Your task to perform on an android device: Search for "usb-a to usb-b" on bestbuy, select the first entry, and add it to the cart. Image 0: 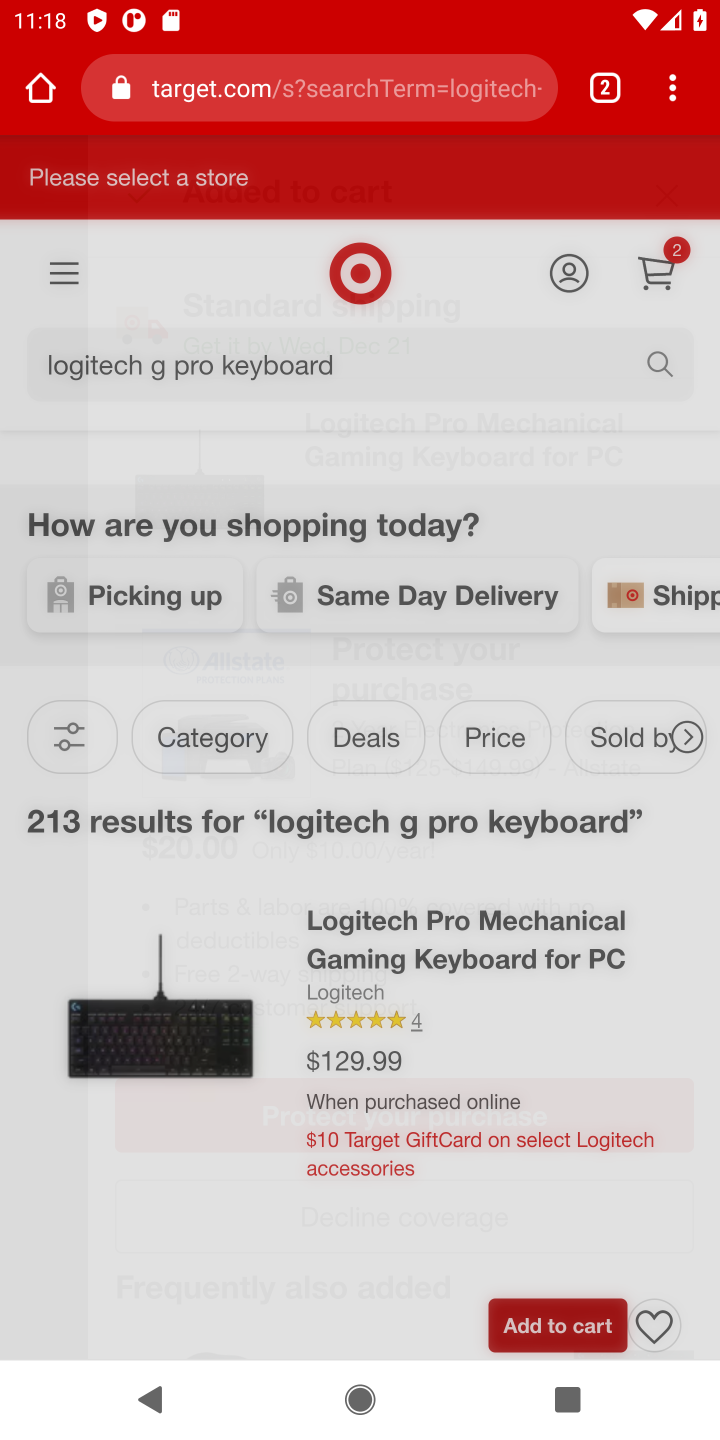
Step 0: click (415, 89)
Your task to perform on an android device: Search for "usb-a to usb-b" on bestbuy, select the first entry, and add it to the cart. Image 1: 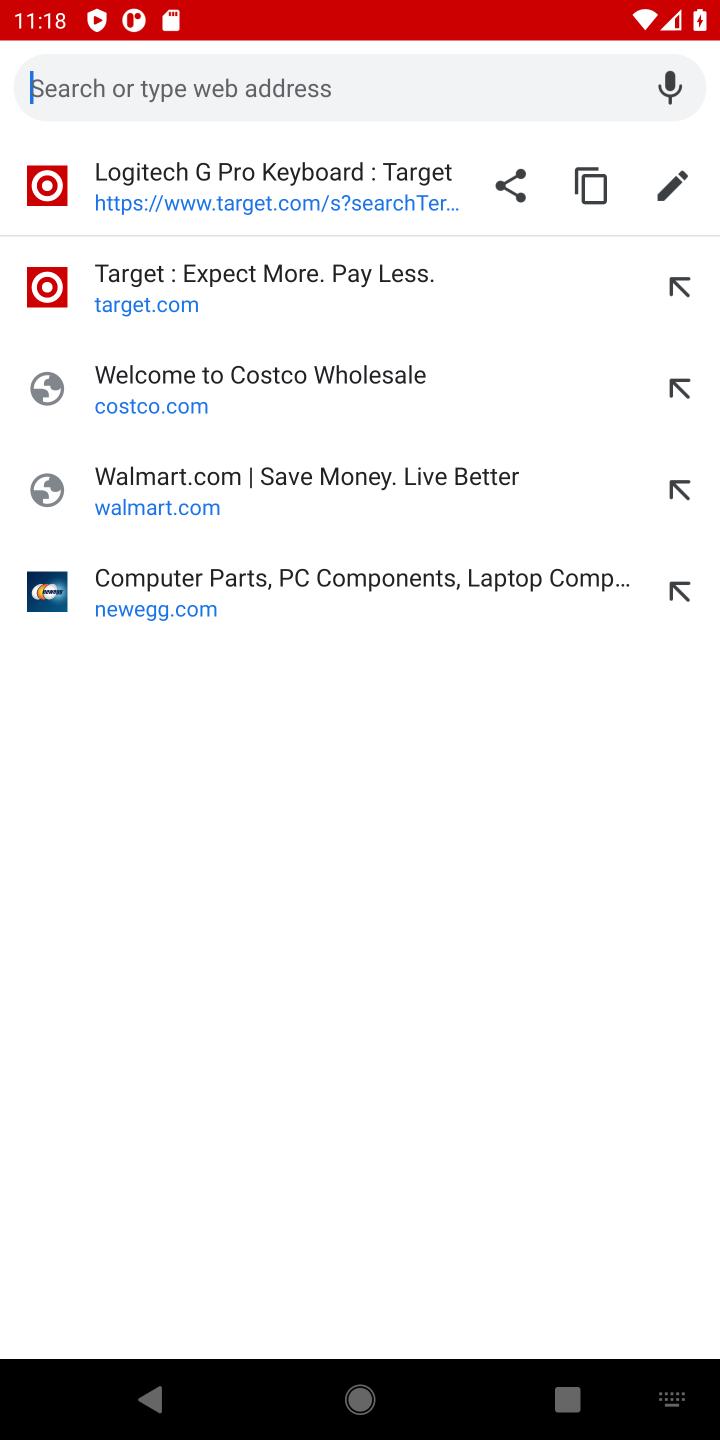
Step 1: type "bestbuy"
Your task to perform on an android device: Search for "usb-a to usb-b" on bestbuy, select the first entry, and add it to the cart. Image 2: 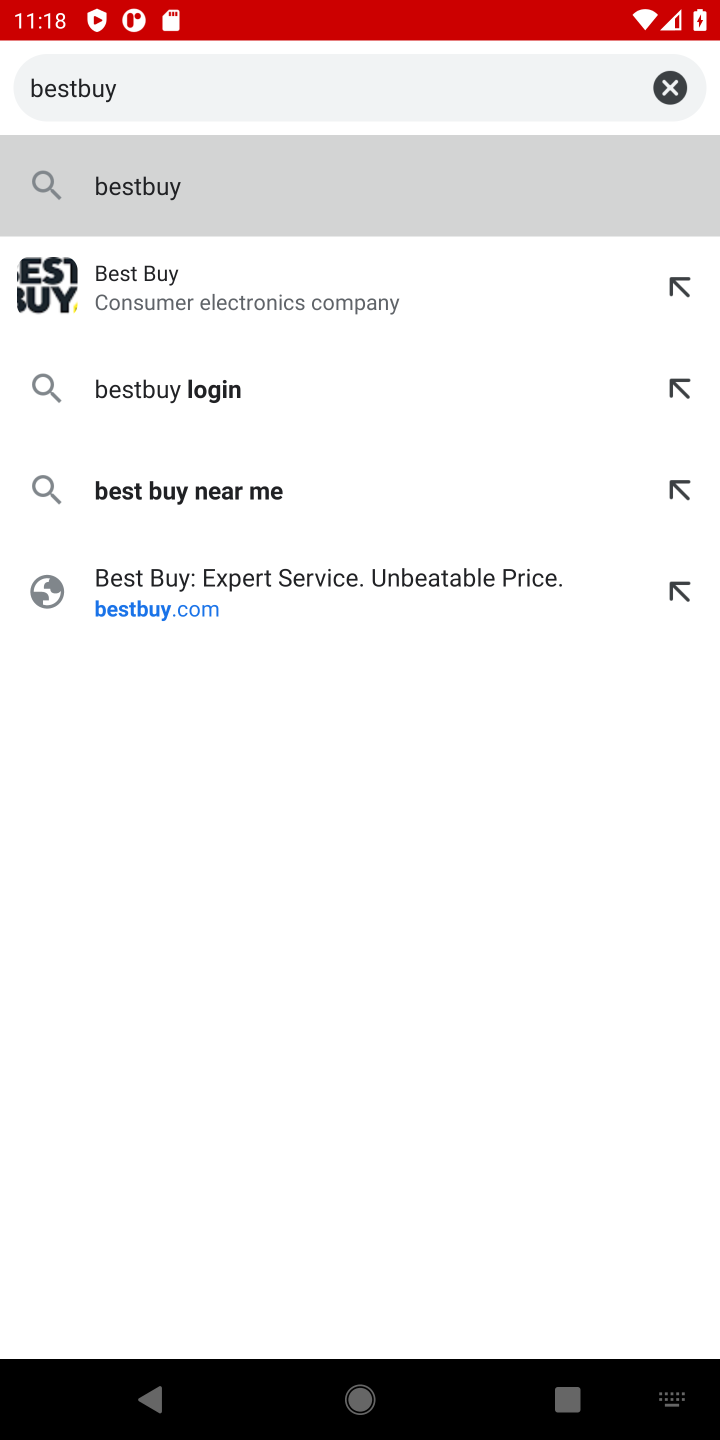
Step 2: click (157, 296)
Your task to perform on an android device: Search for "usb-a to usb-b" on bestbuy, select the first entry, and add it to the cart. Image 3: 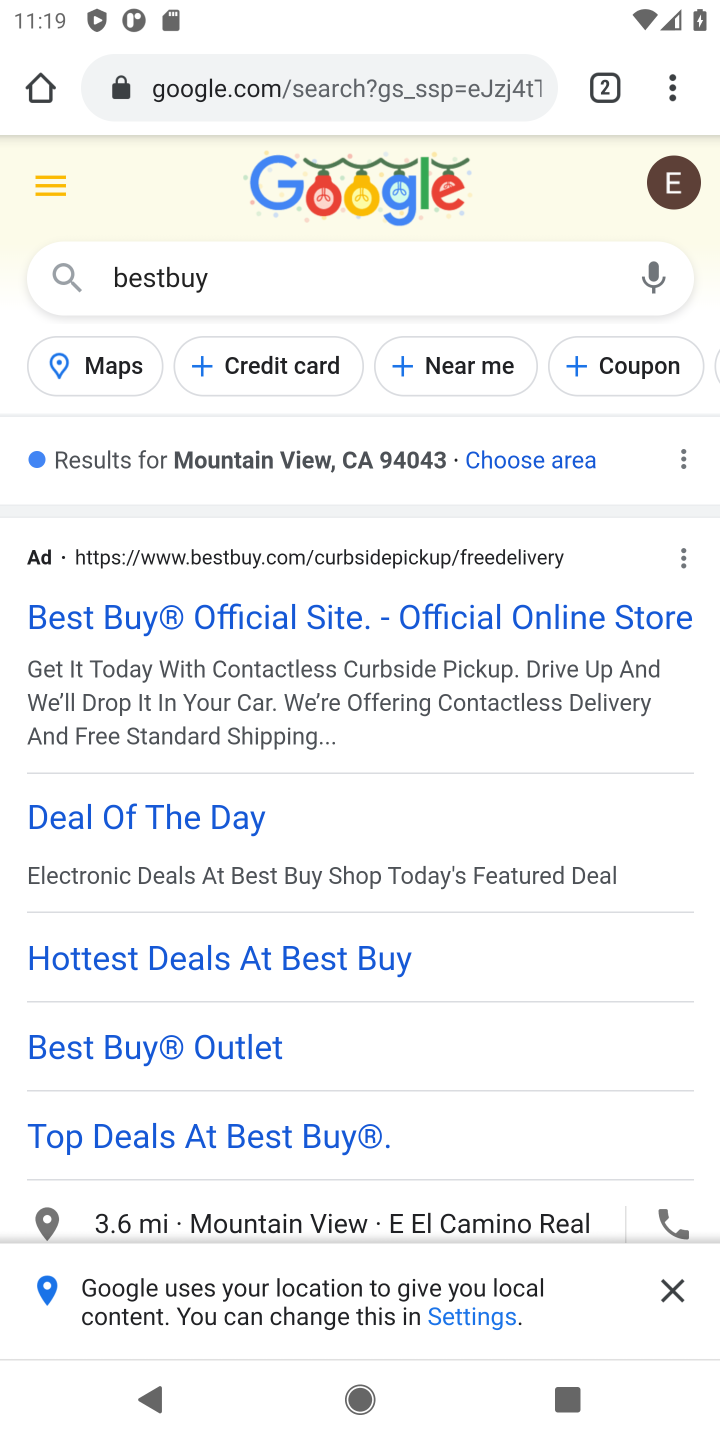
Step 3: click (437, 610)
Your task to perform on an android device: Search for "usb-a to usb-b" on bestbuy, select the first entry, and add it to the cart. Image 4: 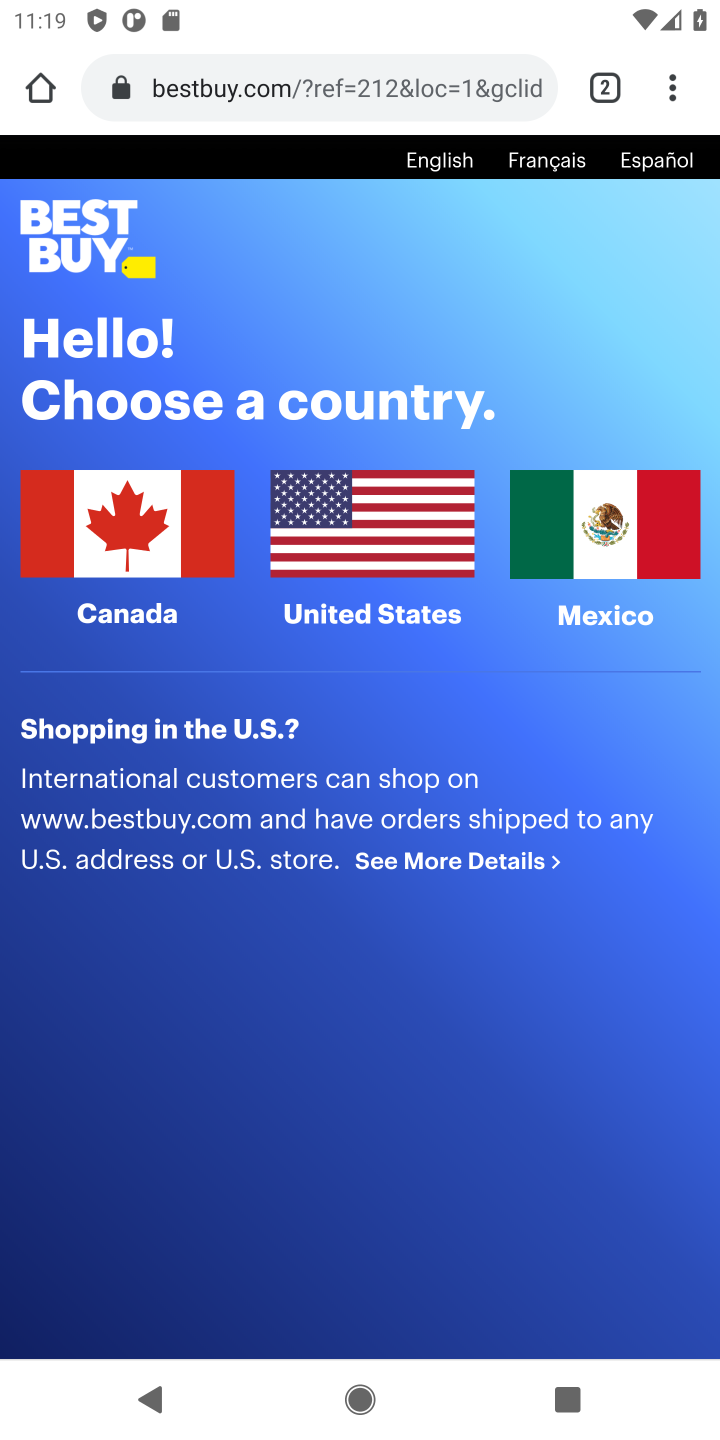
Step 4: click (395, 546)
Your task to perform on an android device: Search for "usb-a to usb-b" on bestbuy, select the first entry, and add it to the cart. Image 5: 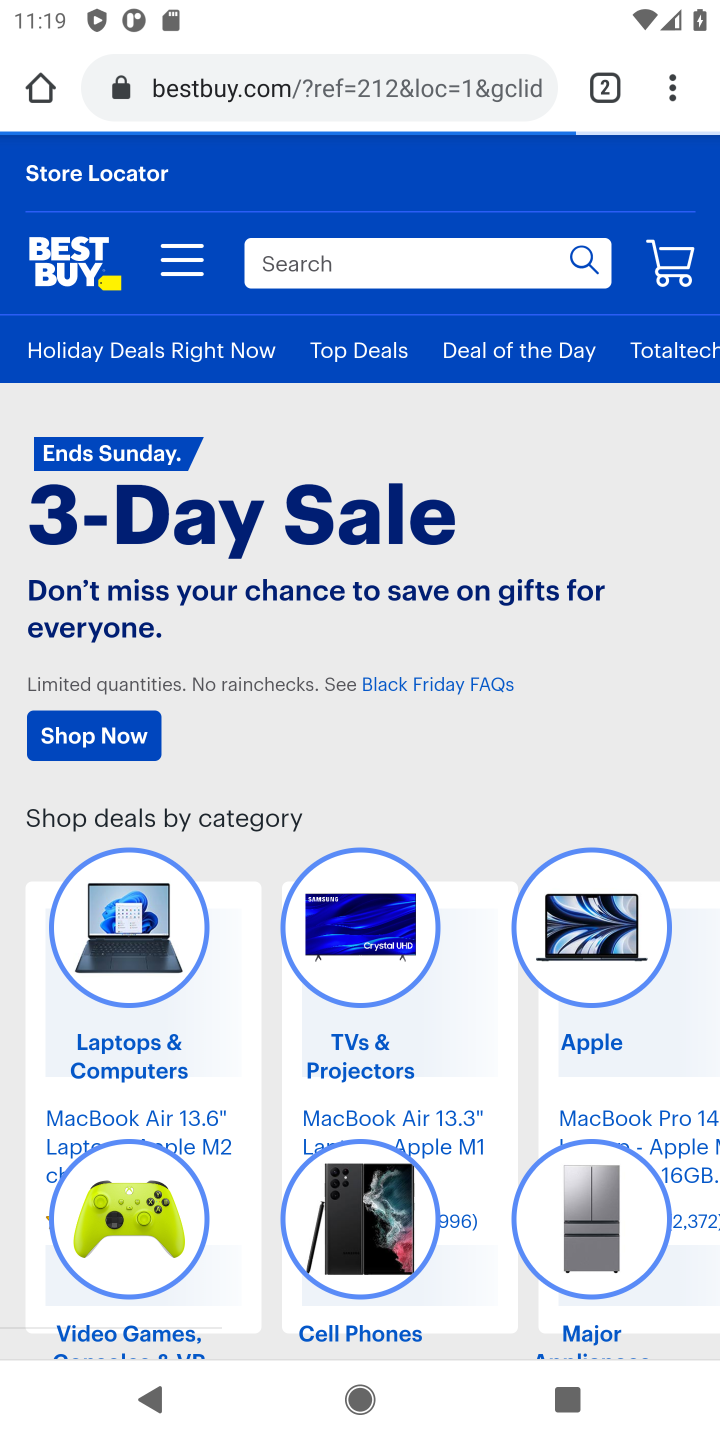
Step 5: click (517, 260)
Your task to perform on an android device: Search for "usb-a to usb-b" on bestbuy, select the first entry, and add it to the cart. Image 6: 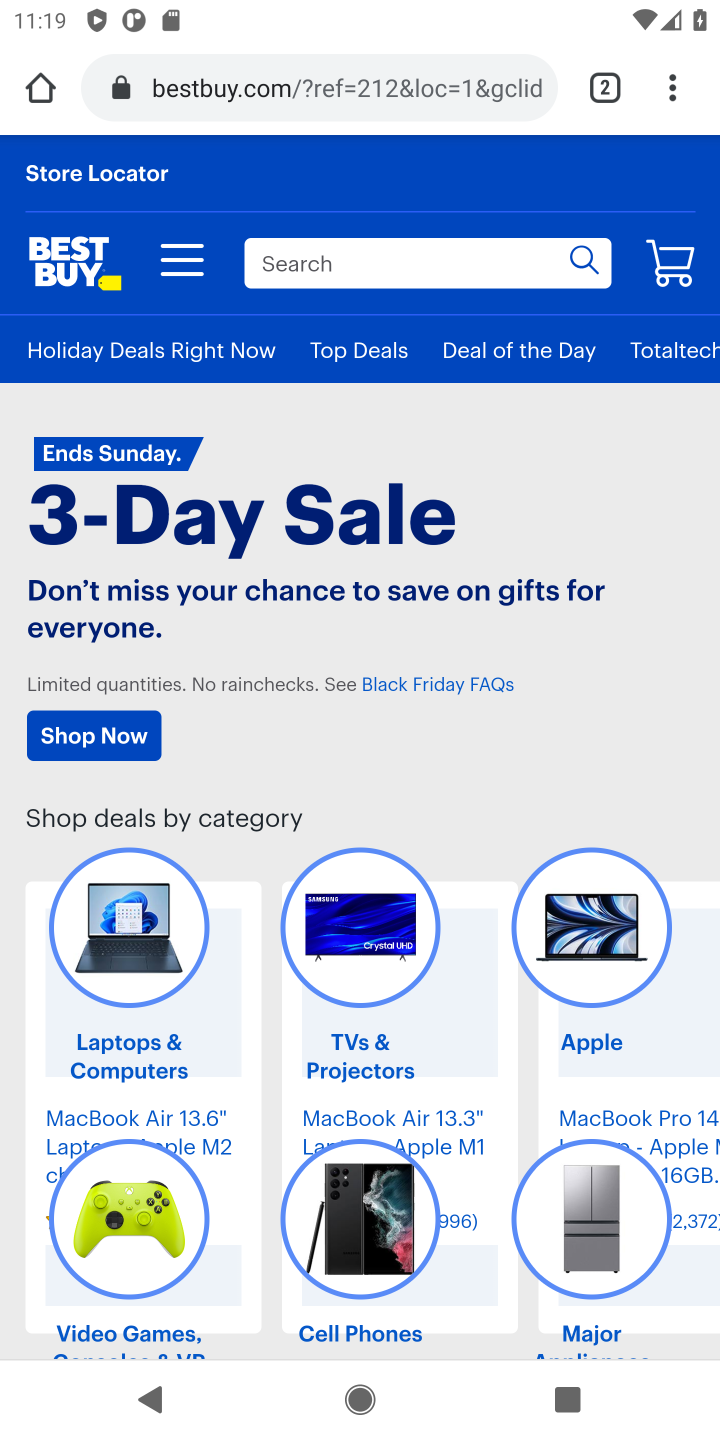
Step 6: type "usb-a to usb-b"
Your task to perform on an android device: Search for "usb-a to usb-b" on bestbuy, select the first entry, and add it to the cart. Image 7: 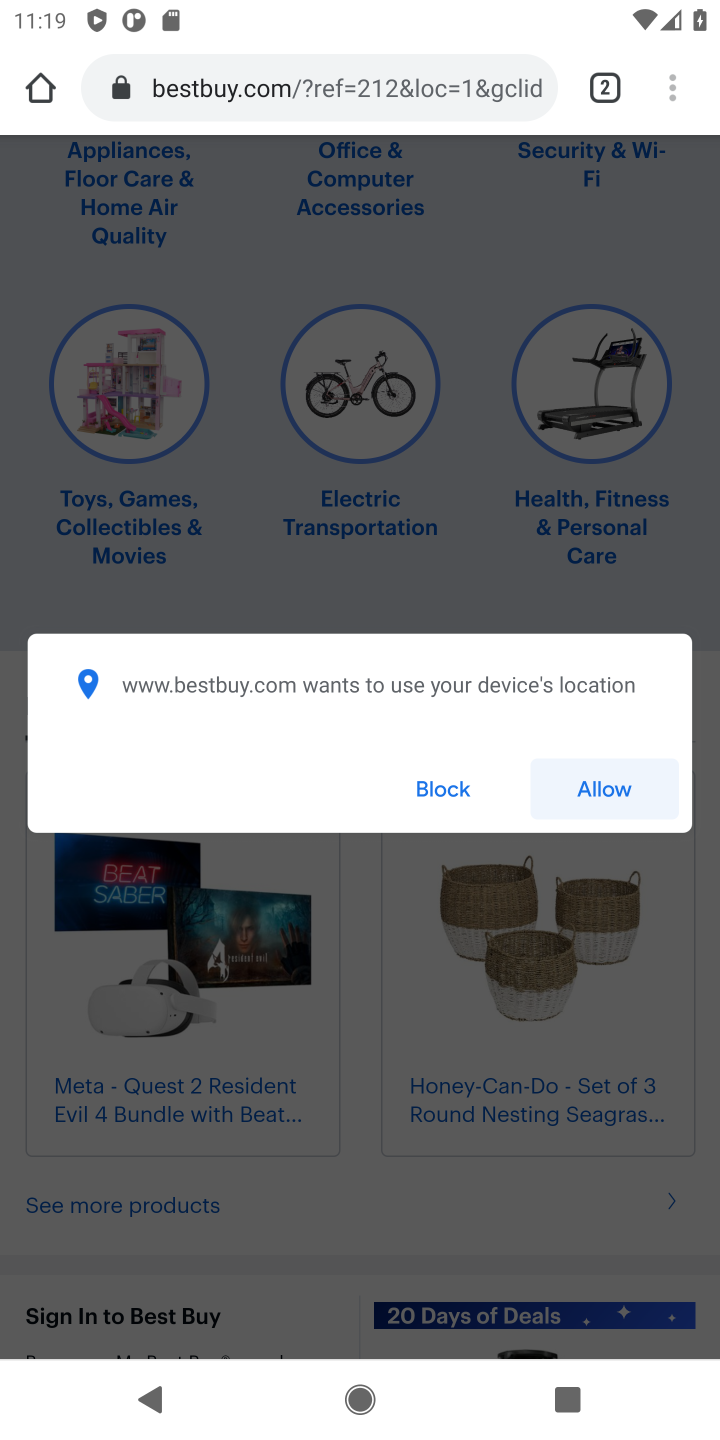
Step 7: click (450, 785)
Your task to perform on an android device: Search for "usb-a to usb-b" on bestbuy, select the first entry, and add it to the cart. Image 8: 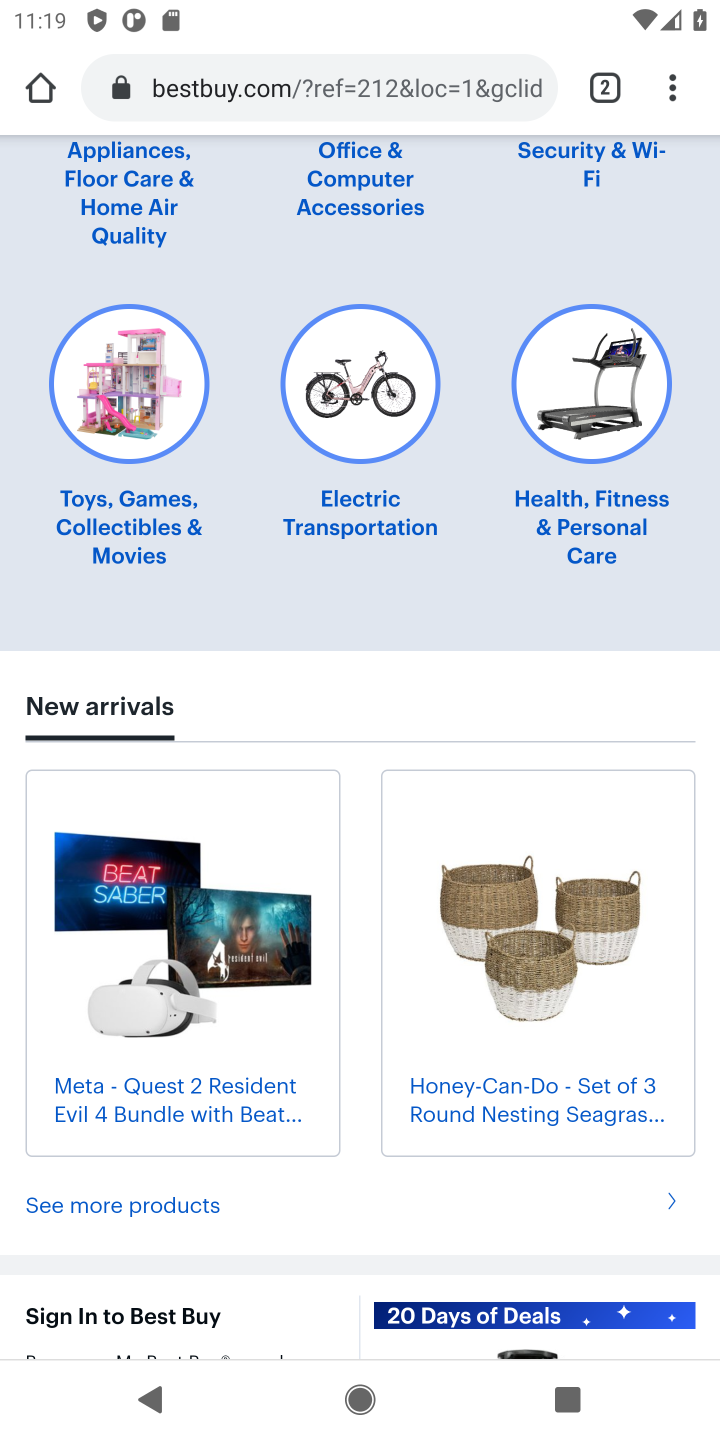
Step 8: drag from (534, 261) to (583, 948)
Your task to perform on an android device: Search for "usb-a to usb-b" on bestbuy, select the first entry, and add it to the cart. Image 9: 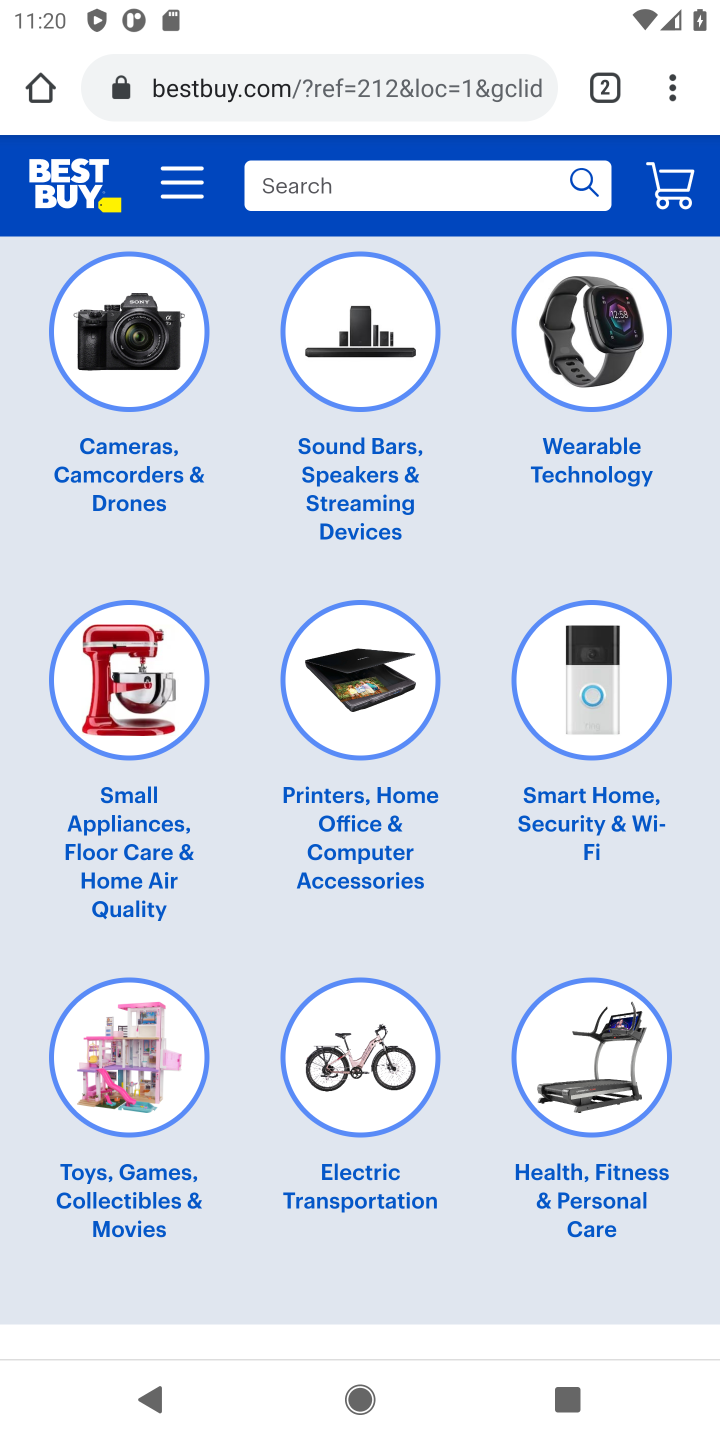
Step 9: click (411, 185)
Your task to perform on an android device: Search for "usb-a to usb-b" on bestbuy, select the first entry, and add it to the cart. Image 10: 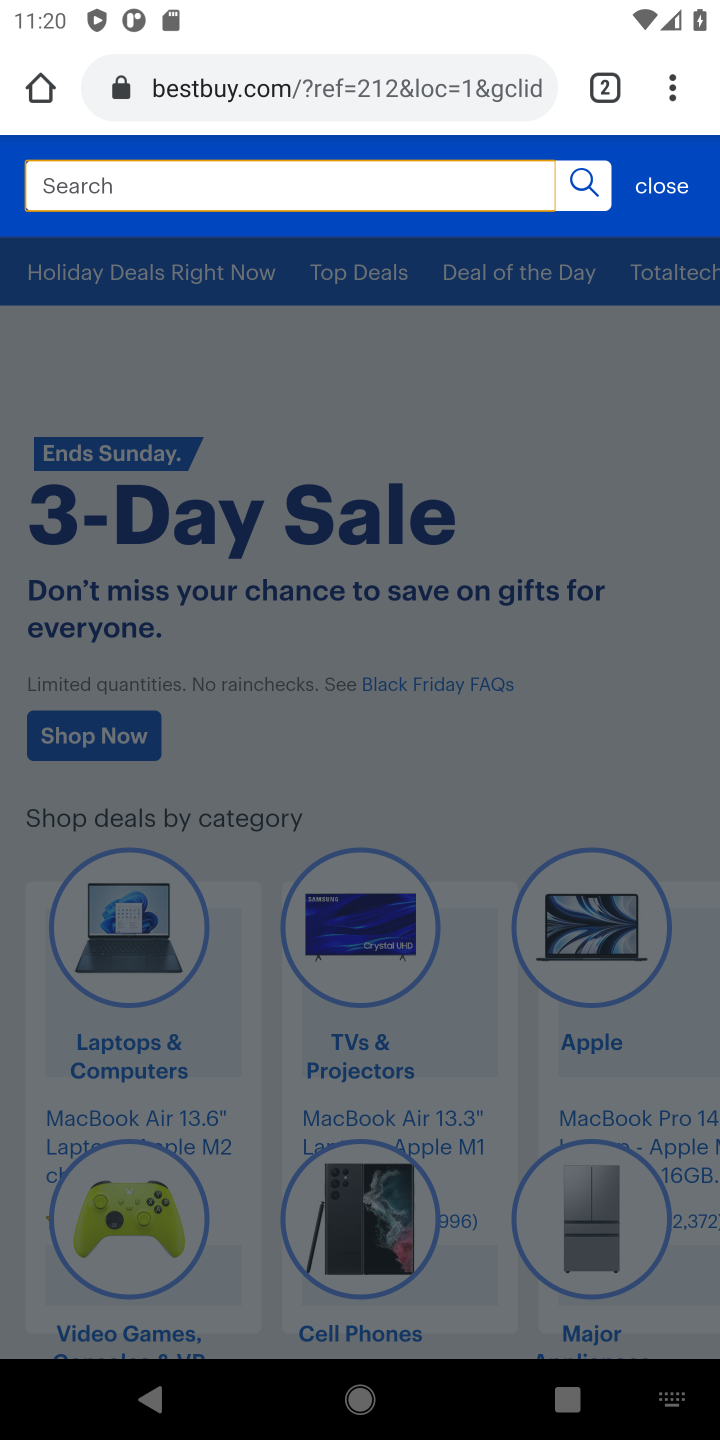
Step 10: type "usb-a to usb-b"
Your task to perform on an android device: Search for "usb-a to usb-b" on bestbuy, select the first entry, and add it to the cart. Image 11: 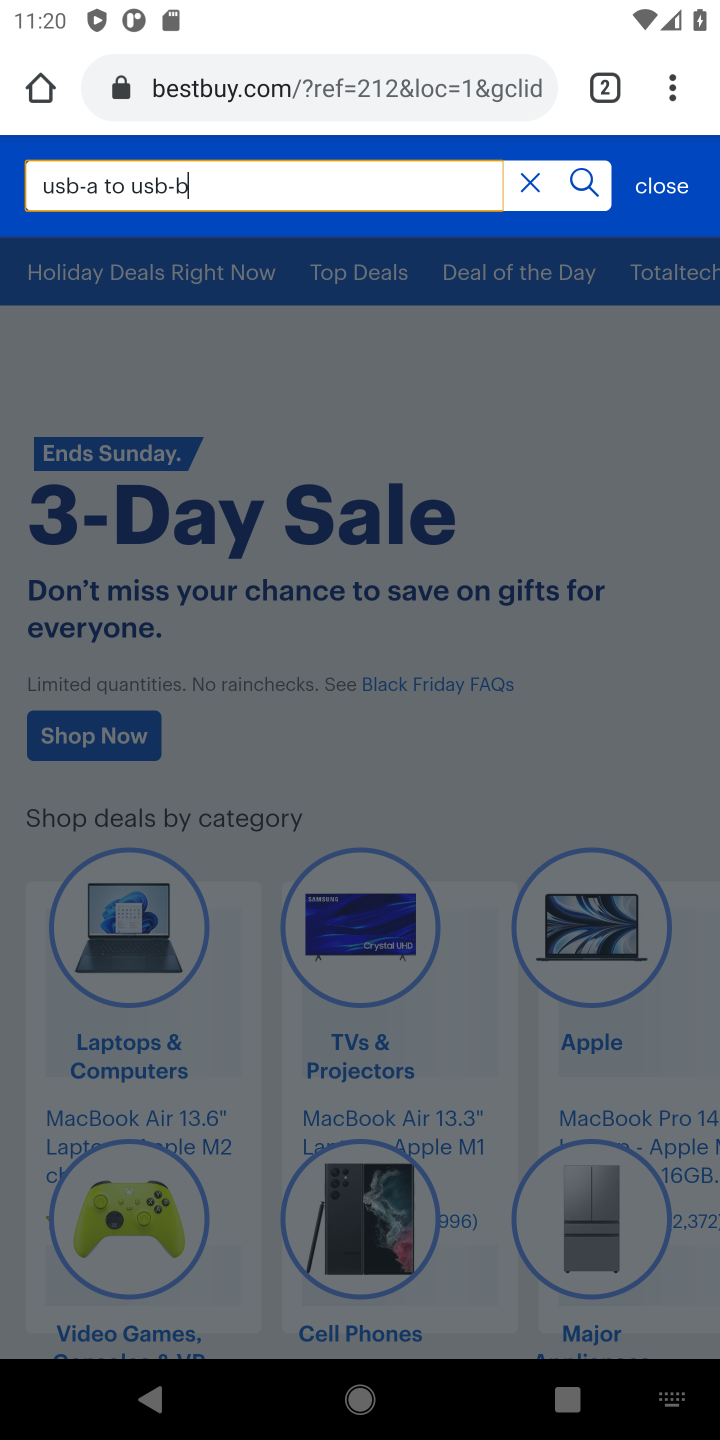
Step 11: click (291, 193)
Your task to perform on an android device: Search for "usb-a to usb-b" on bestbuy, select the first entry, and add it to the cart. Image 12: 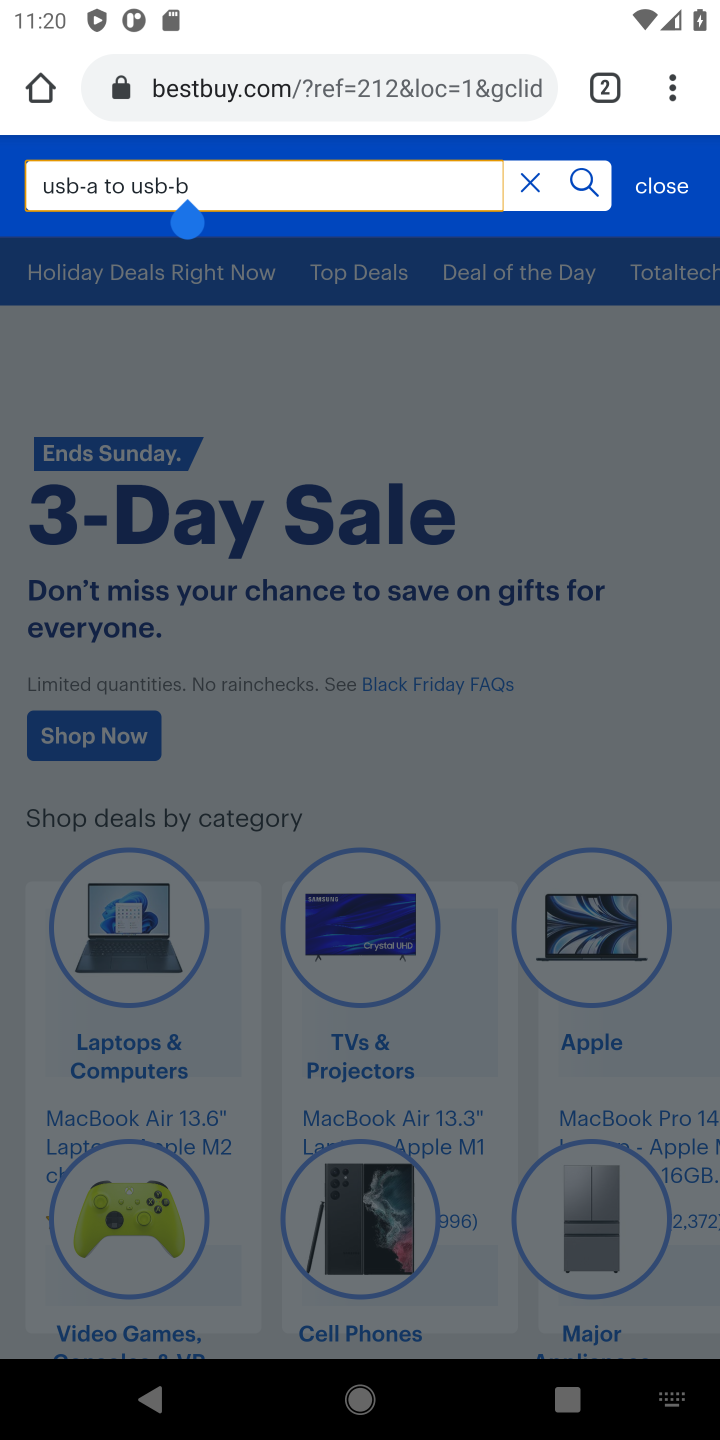
Step 12: click (578, 189)
Your task to perform on an android device: Search for "usb-a to usb-b" on bestbuy, select the first entry, and add it to the cart. Image 13: 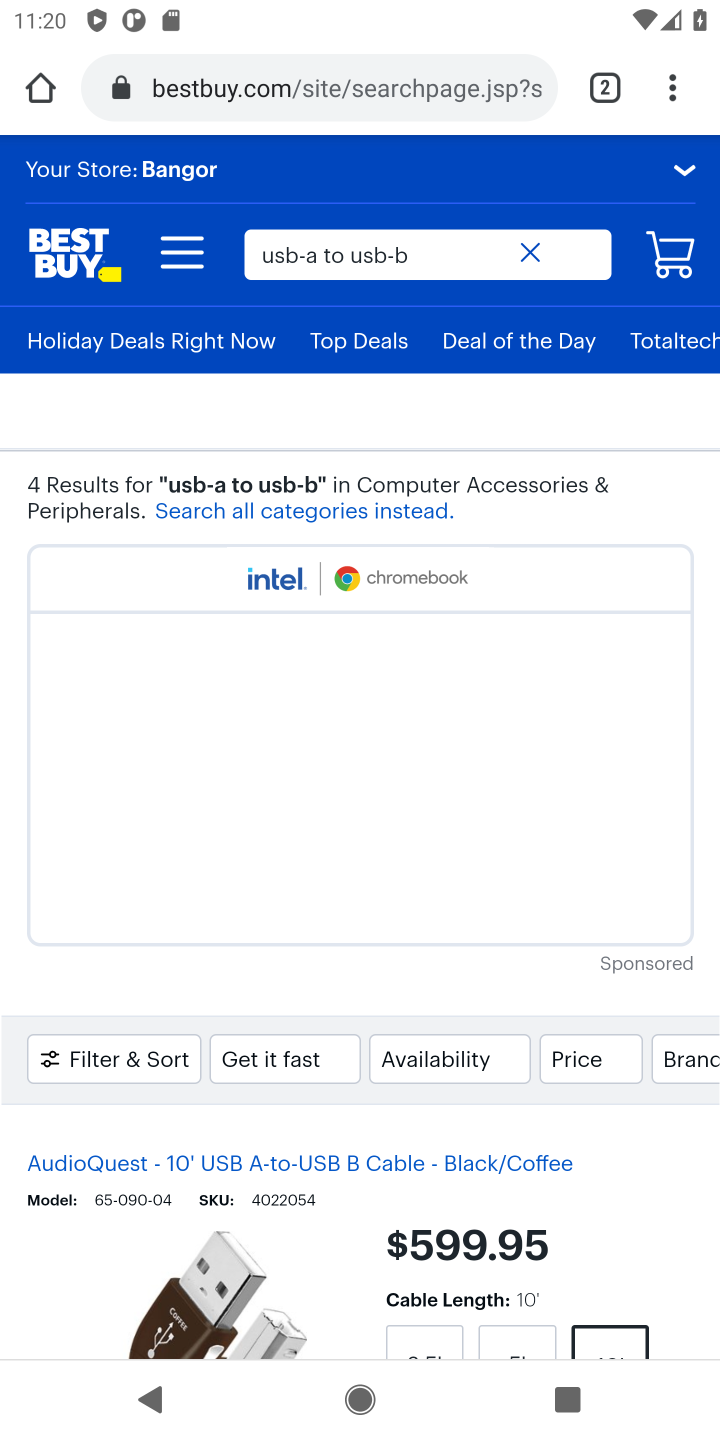
Step 13: click (251, 1301)
Your task to perform on an android device: Search for "usb-a to usb-b" on bestbuy, select the first entry, and add it to the cart. Image 14: 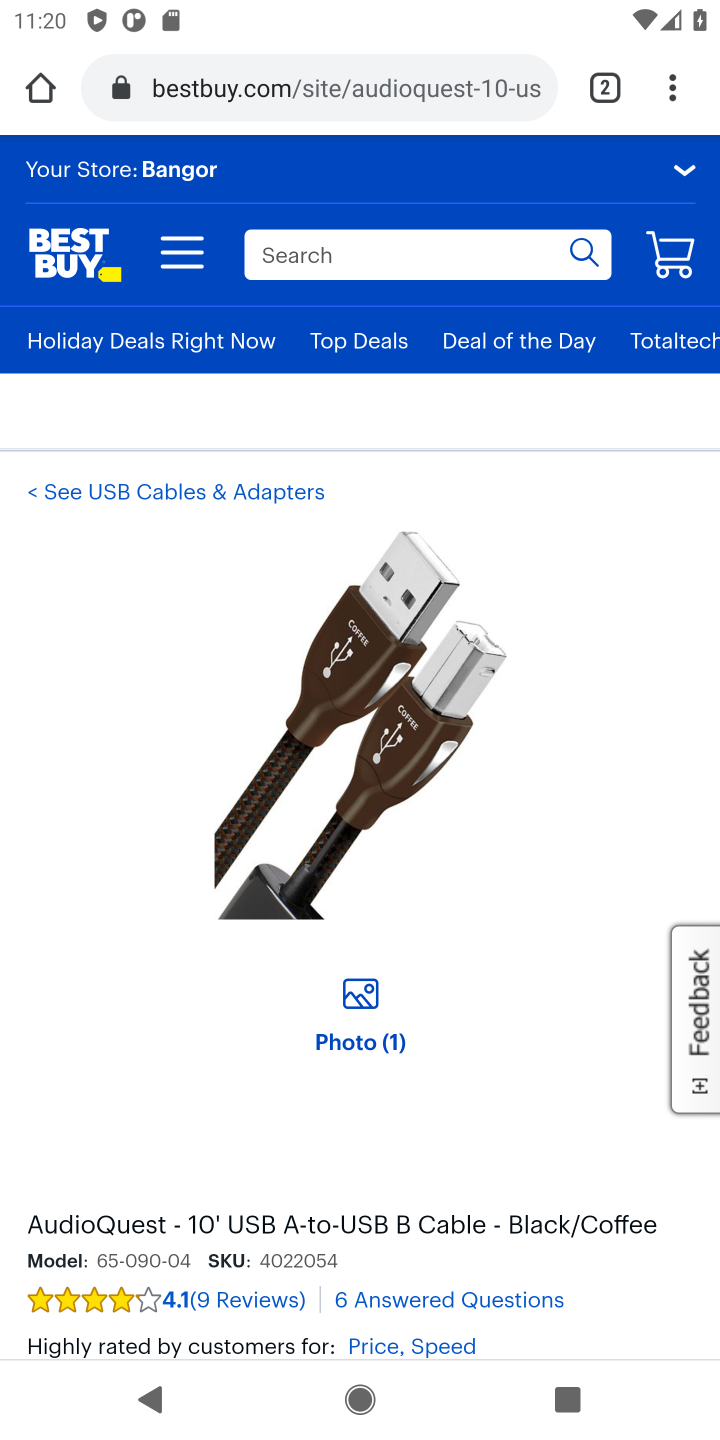
Step 14: drag from (525, 1263) to (403, 612)
Your task to perform on an android device: Search for "usb-a to usb-b" on bestbuy, select the first entry, and add it to the cart. Image 15: 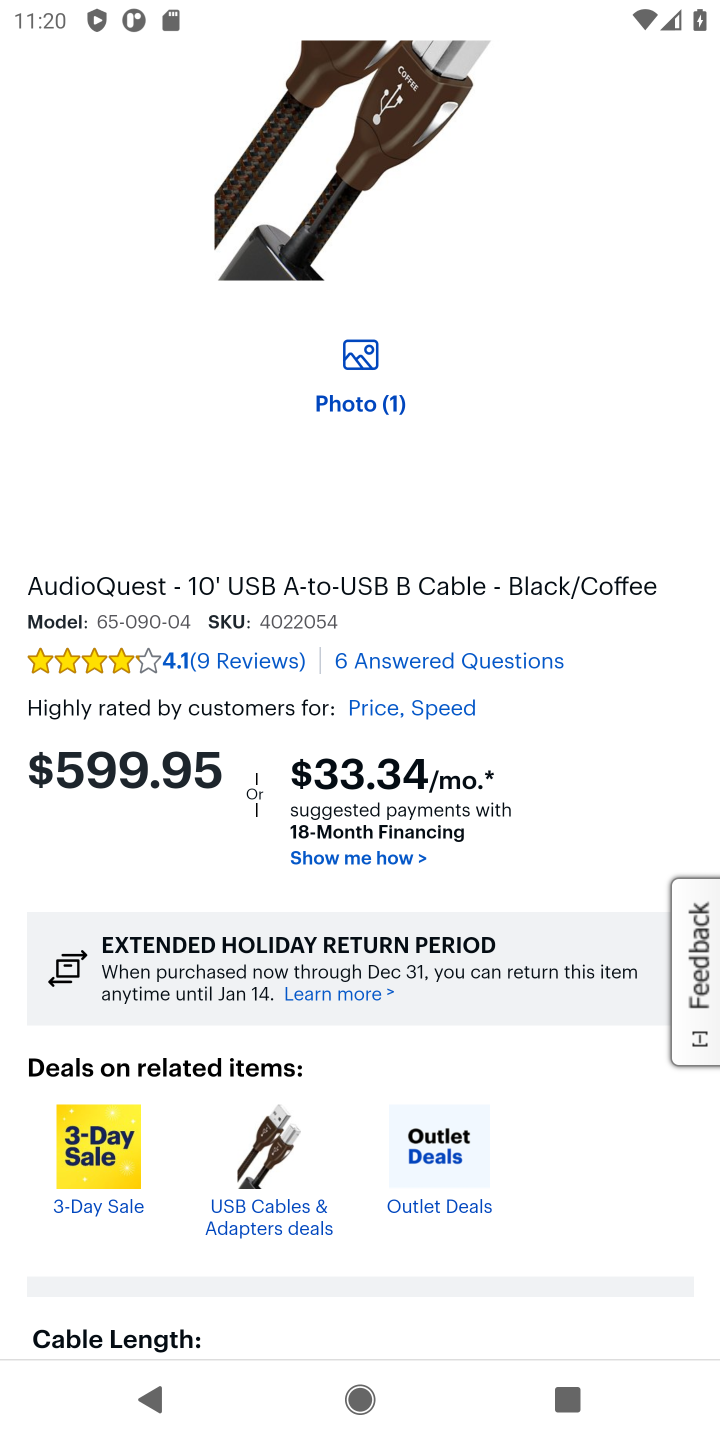
Step 15: drag from (556, 1163) to (426, 285)
Your task to perform on an android device: Search for "usb-a to usb-b" on bestbuy, select the first entry, and add it to the cart. Image 16: 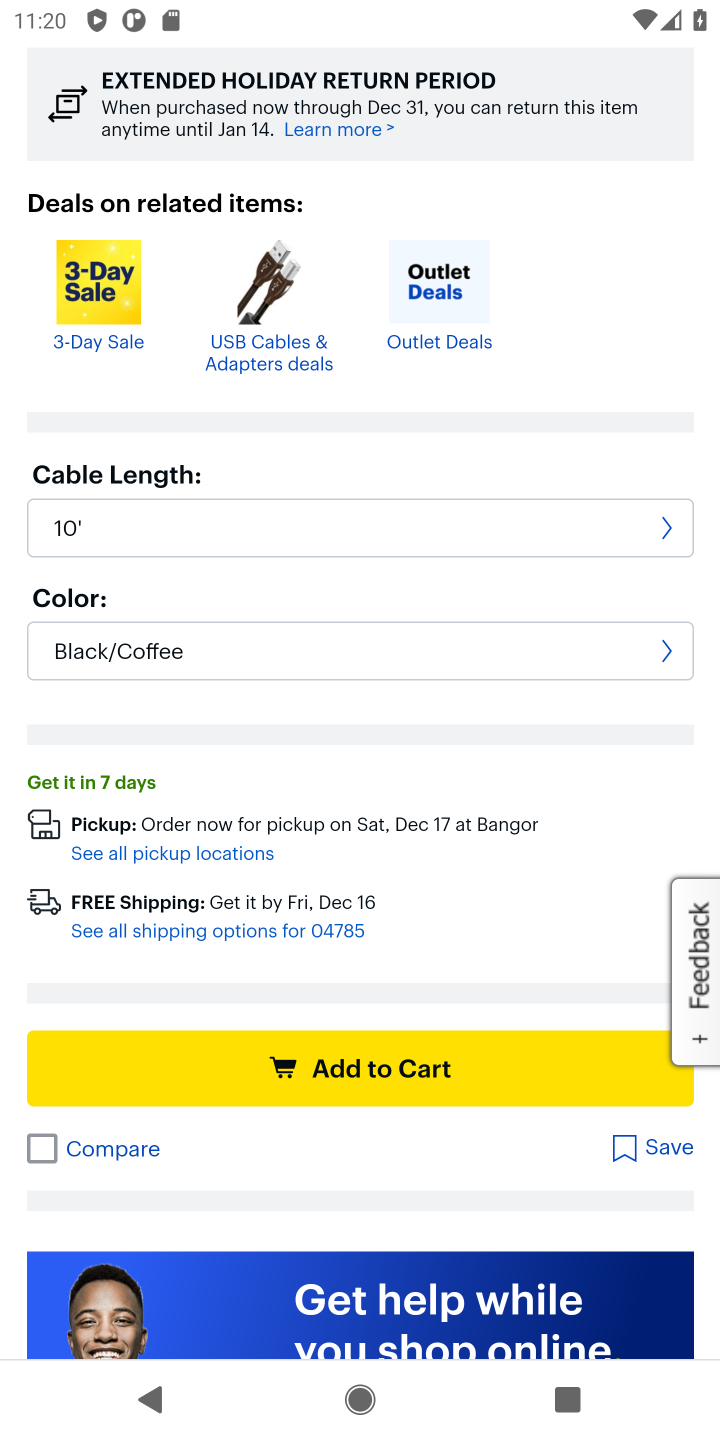
Step 16: click (398, 1048)
Your task to perform on an android device: Search for "usb-a to usb-b" on bestbuy, select the first entry, and add it to the cart. Image 17: 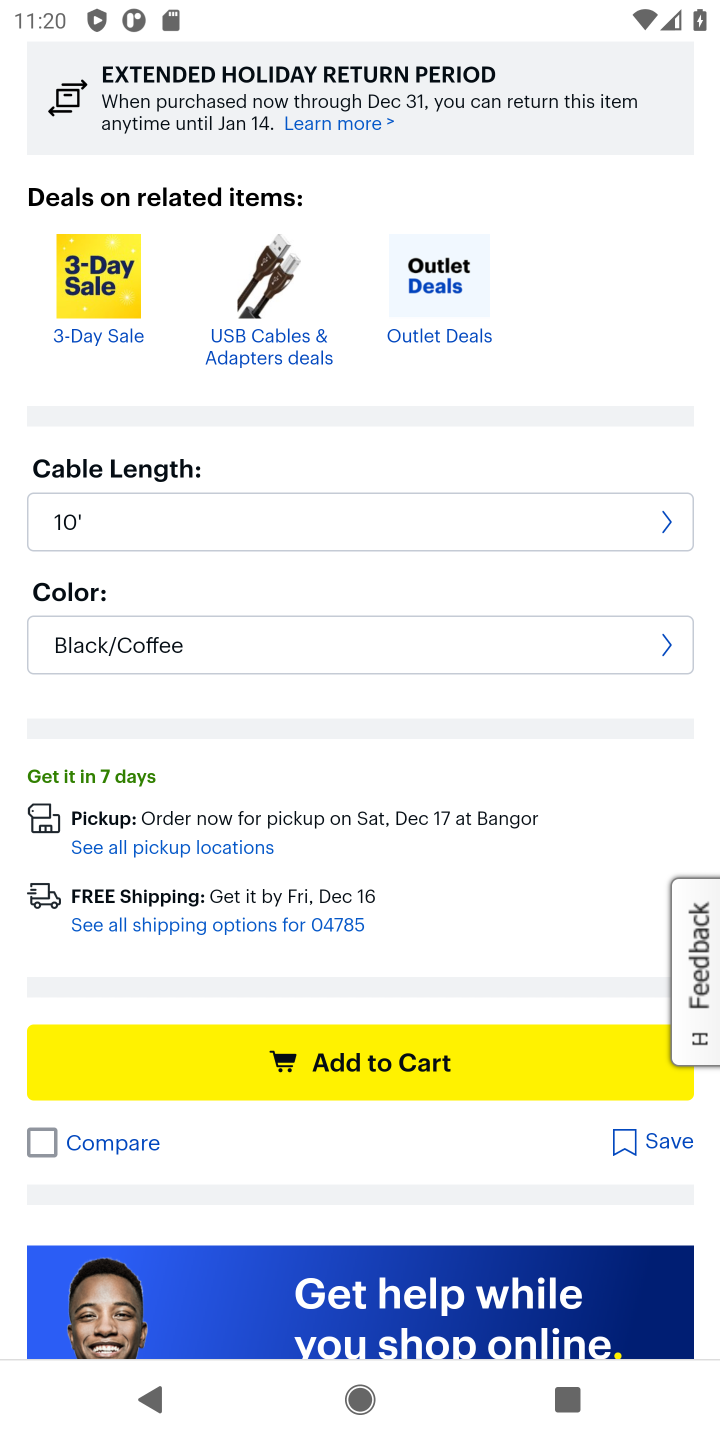
Step 17: task complete